Your task to perform on an android device: Open calendar and show me the second week of next month Image 0: 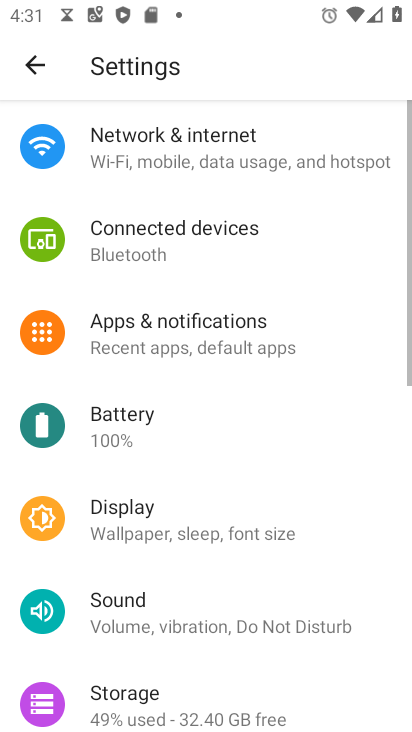
Step 0: press home button
Your task to perform on an android device: Open calendar and show me the second week of next month Image 1: 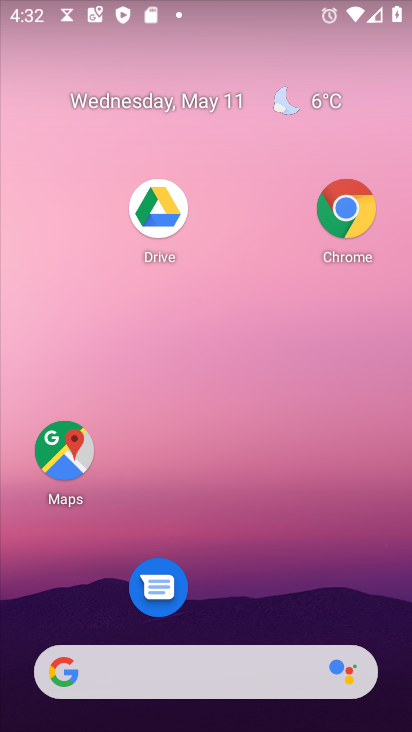
Step 1: click (206, 107)
Your task to perform on an android device: Open calendar and show me the second week of next month Image 2: 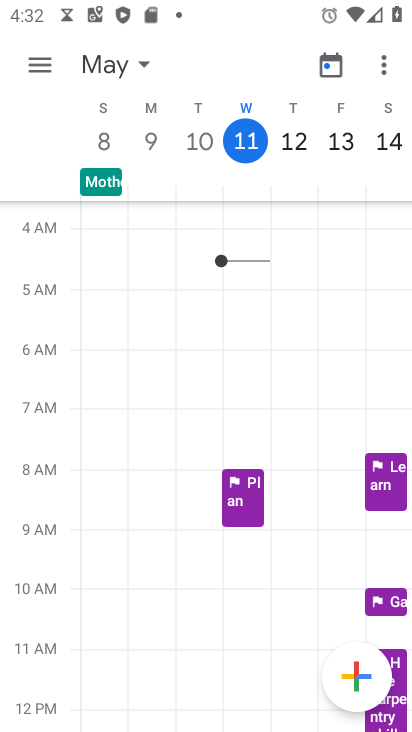
Step 2: click (48, 62)
Your task to perform on an android device: Open calendar and show me the second week of next month Image 3: 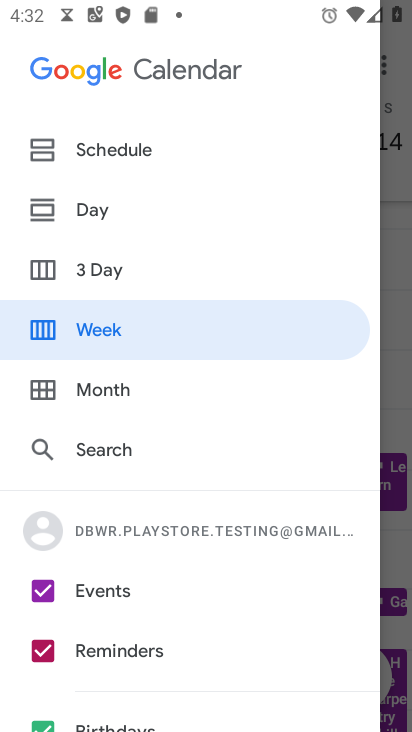
Step 3: click (395, 152)
Your task to perform on an android device: Open calendar and show me the second week of next month Image 4: 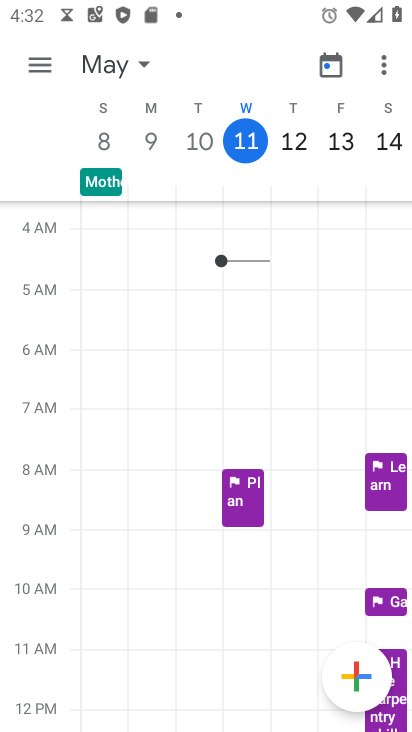
Step 4: task complete